Your task to perform on an android device: Go to privacy settings Image 0: 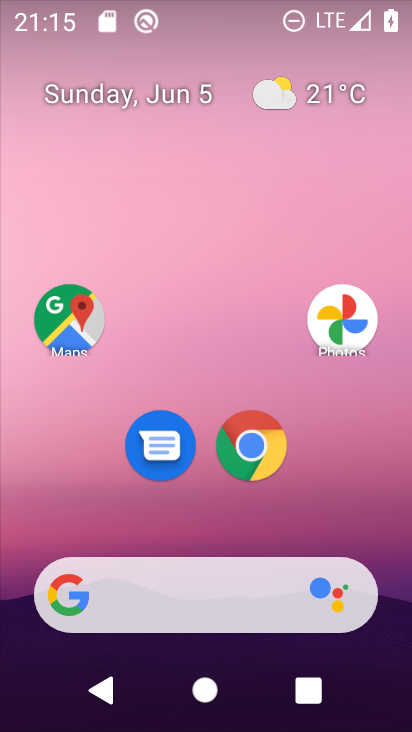
Step 0: drag from (343, 501) to (404, 35)
Your task to perform on an android device: Go to privacy settings Image 1: 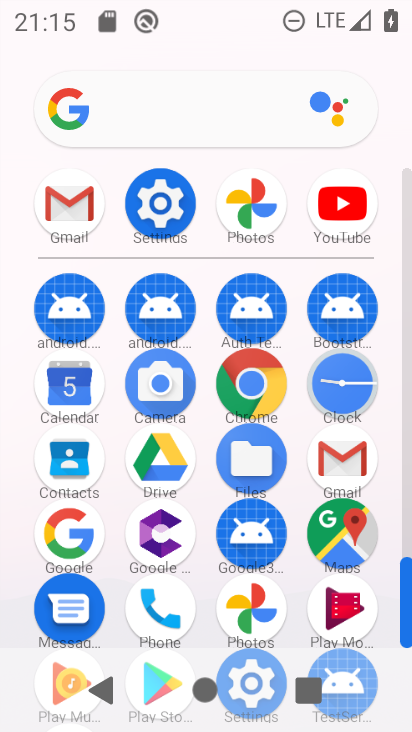
Step 1: click (162, 179)
Your task to perform on an android device: Go to privacy settings Image 2: 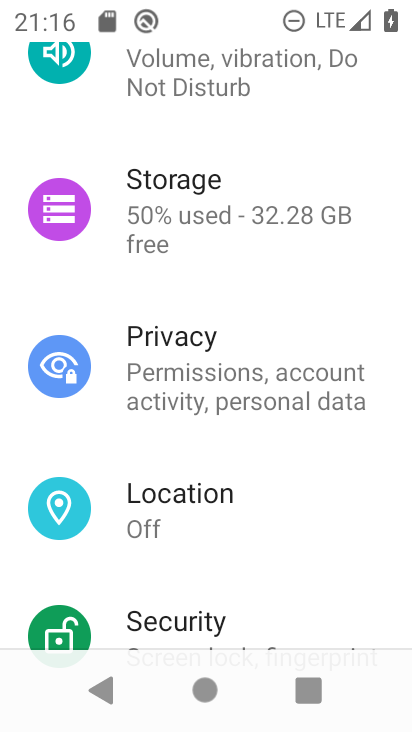
Step 2: click (192, 371)
Your task to perform on an android device: Go to privacy settings Image 3: 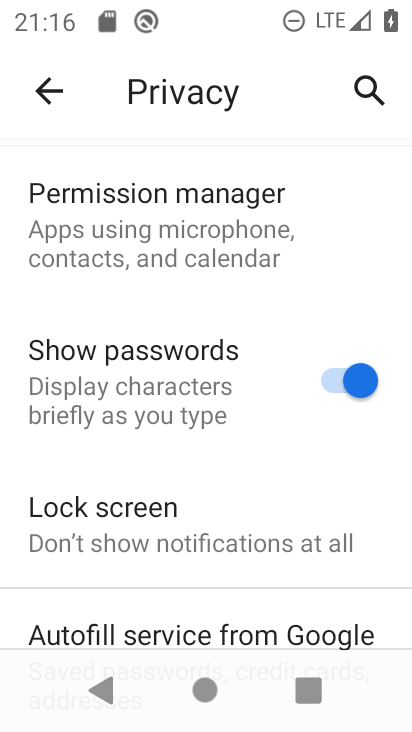
Step 3: task complete